Your task to perform on an android device: clear history in the chrome app Image 0: 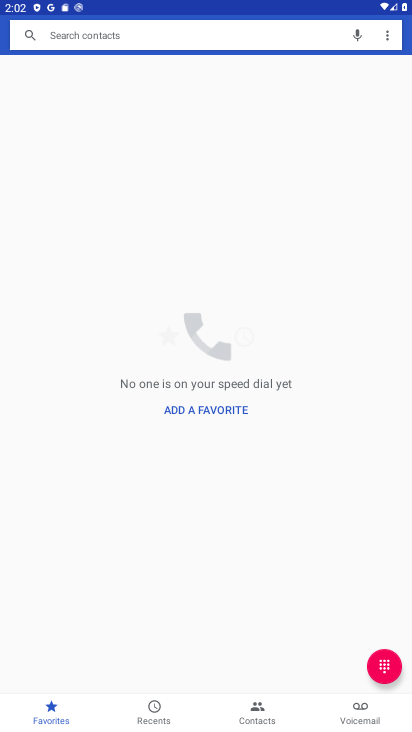
Step 0: press home button
Your task to perform on an android device: clear history in the chrome app Image 1: 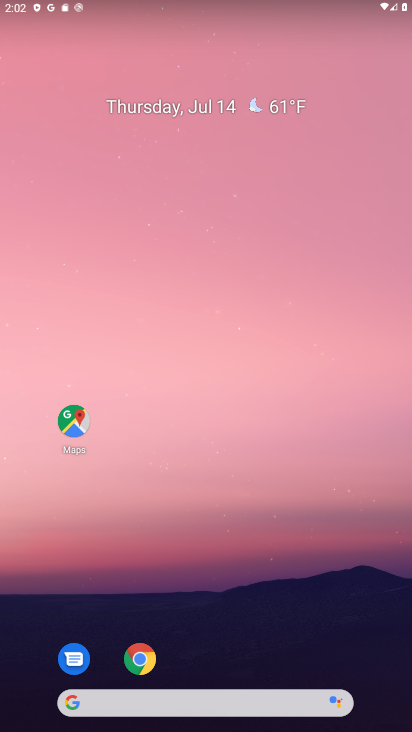
Step 1: drag from (203, 677) to (165, 98)
Your task to perform on an android device: clear history in the chrome app Image 2: 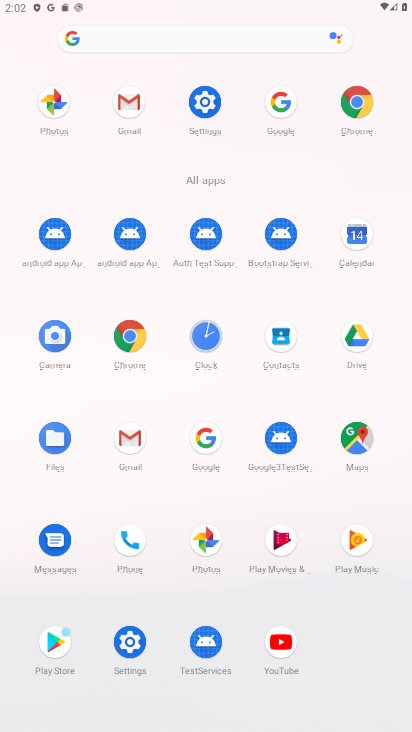
Step 2: click (352, 112)
Your task to perform on an android device: clear history in the chrome app Image 3: 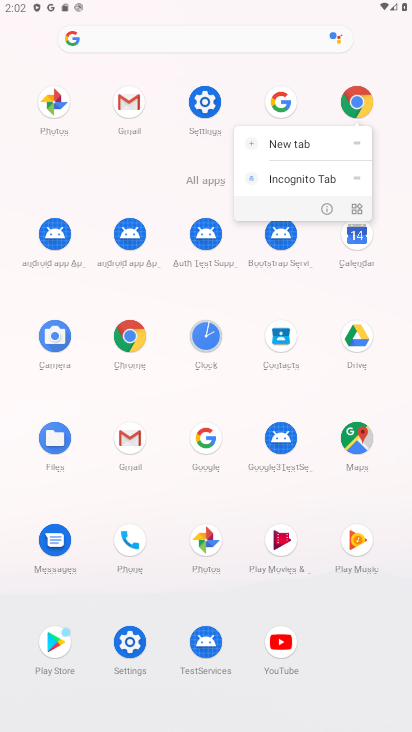
Step 3: click (354, 106)
Your task to perform on an android device: clear history in the chrome app Image 4: 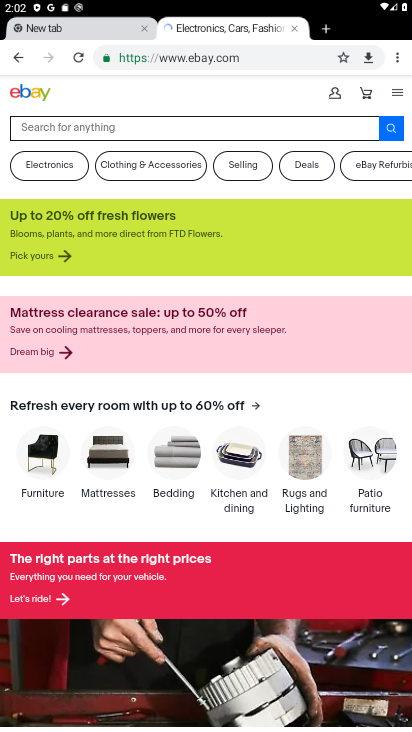
Step 4: drag from (398, 54) to (267, 211)
Your task to perform on an android device: clear history in the chrome app Image 5: 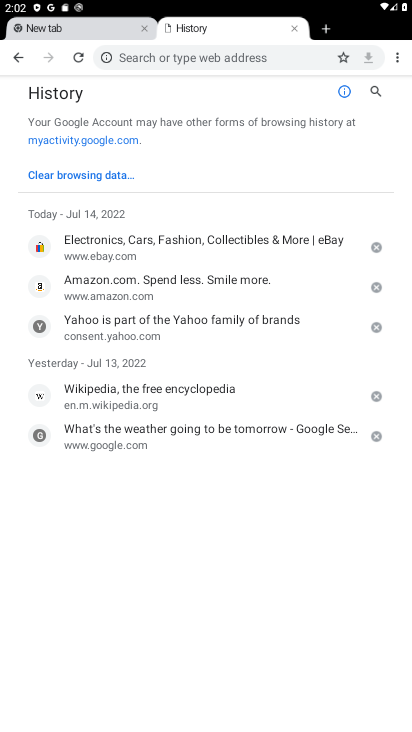
Step 5: click (67, 173)
Your task to perform on an android device: clear history in the chrome app Image 6: 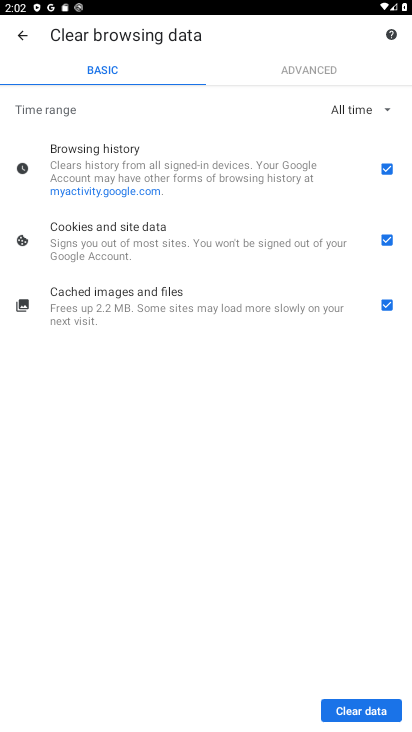
Step 6: click (360, 707)
Your task to perform on an android device: clear history in the chrome app Image 7: 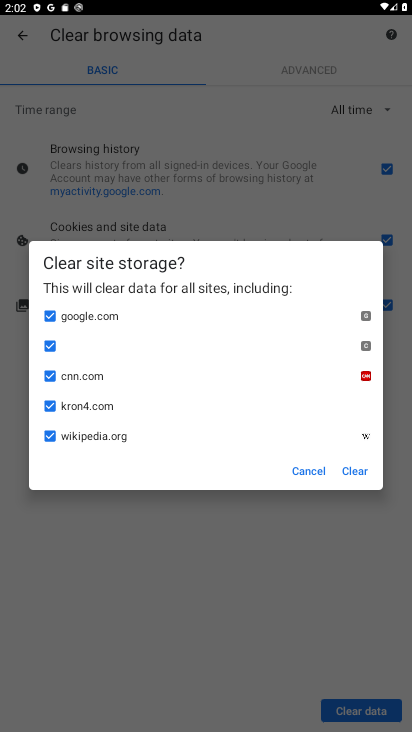
Step 7: click (348, 464)
Your task to perform on an android device: clear history in the chrome app Image 8: 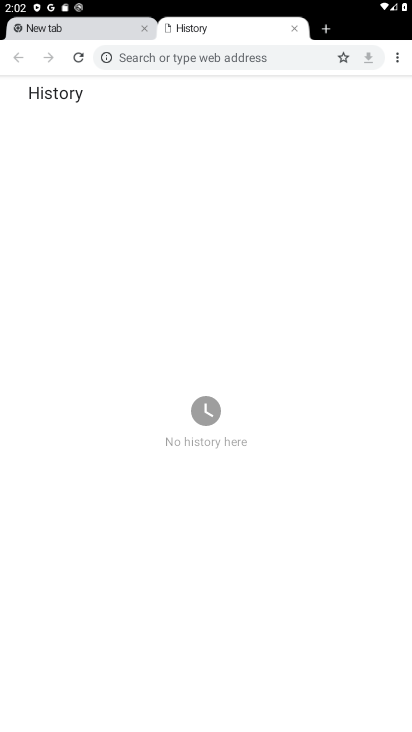
Step 8: task complete